Your task to perform on an android device: Open eBay Image 0: 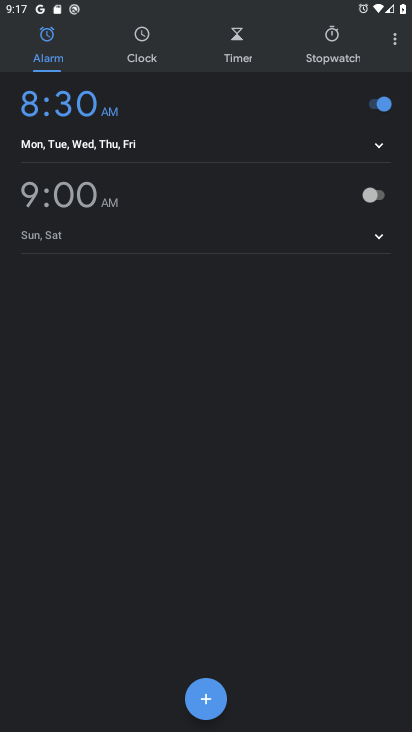
Step 0: press home button
Your task to perform on an android device: Open eBay Image 1: 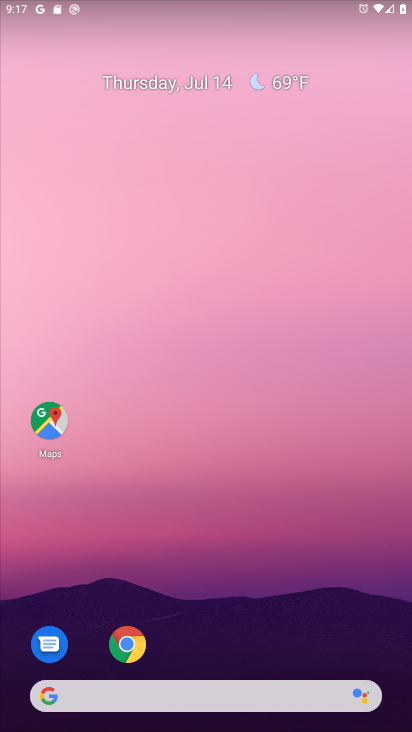
Step 1: click (128, 647)
Your task to perform on an android device: Open eBay Image 2: 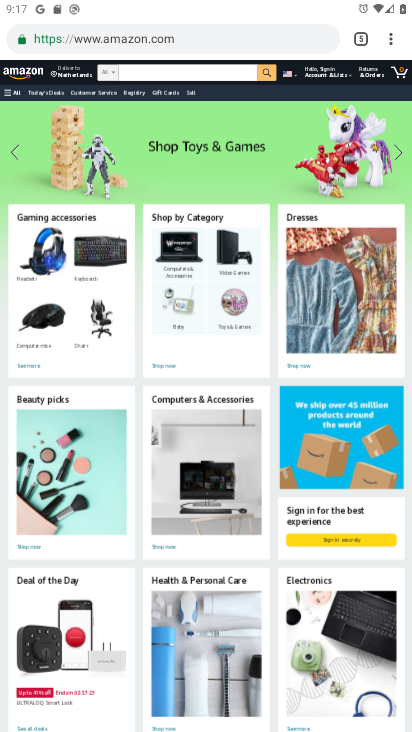
Step 2: click (355, 41)
Your task to perform on an android device: Open eBay Image 3: 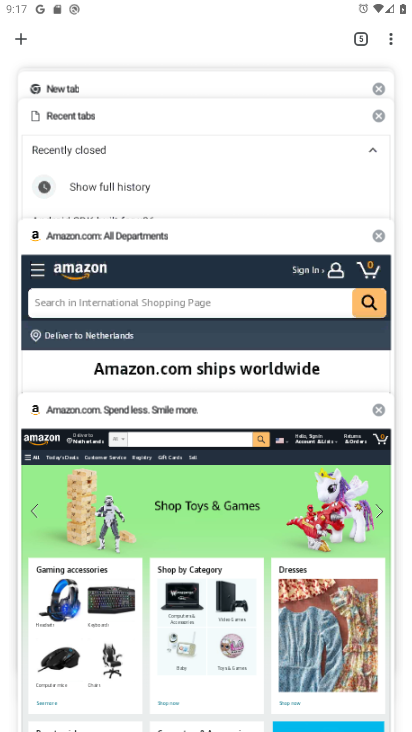
Step 3: click (20, 36)
Your task to perform on an android device: Open eBay Image 4: 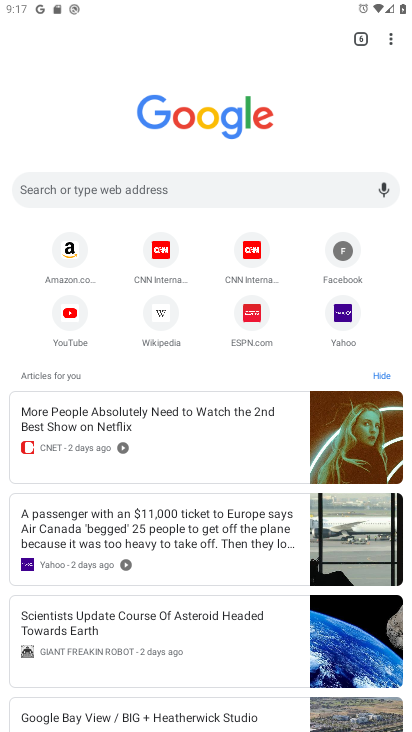
Step 4: click (139, 185)
Your task to perform on an android device: Open eBay Image 5: 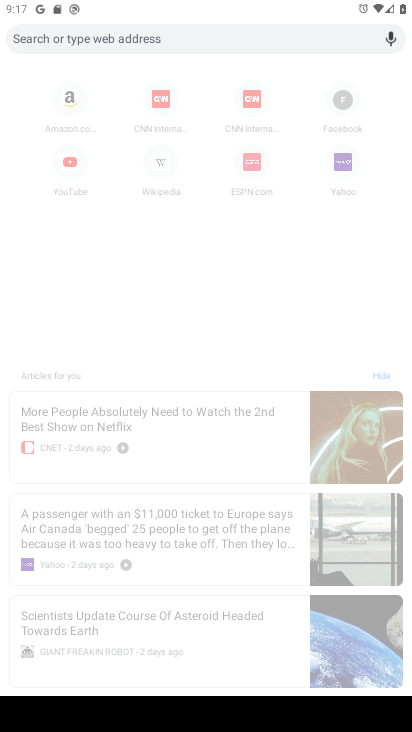
Step 5: type "ebay"
Your task to perform on an android device: Open eBay Image 6: 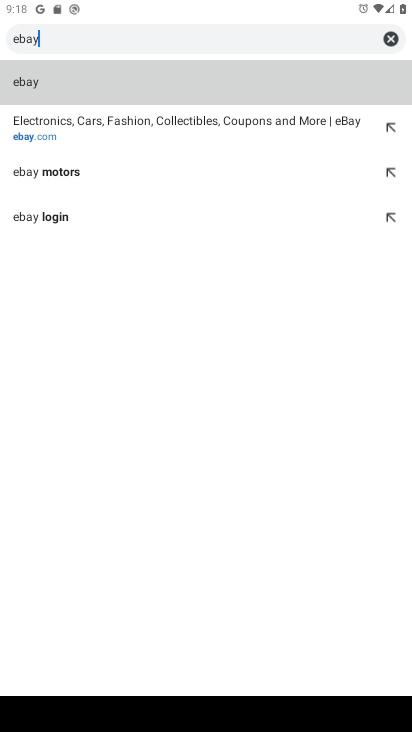
Step 6: click (236, 137)
Your task to perform on an android device: Open eBay Image 7: 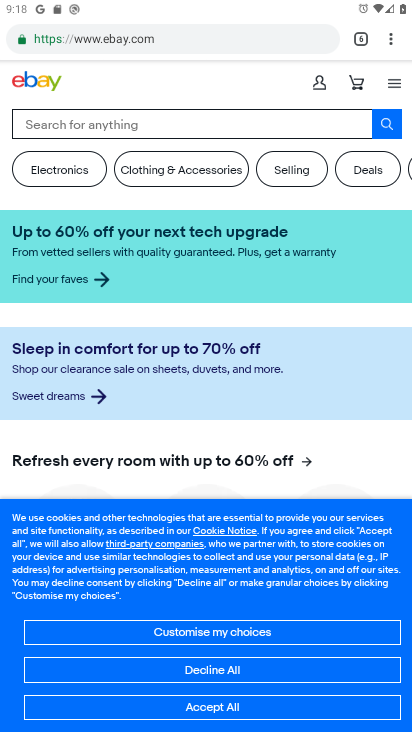
Step 7: task complete